Your task to perform on an android device: turn on translation in the chrome app Image 0: 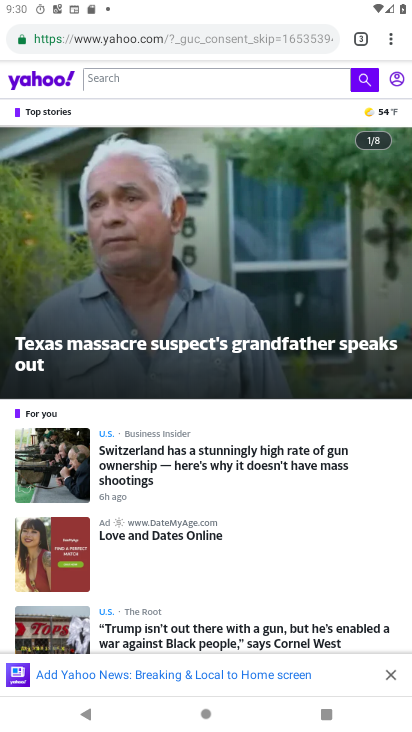
Step 0: click (392, 44)
Your task to perform on an android device: turn on translation in the chrome app Image 1: 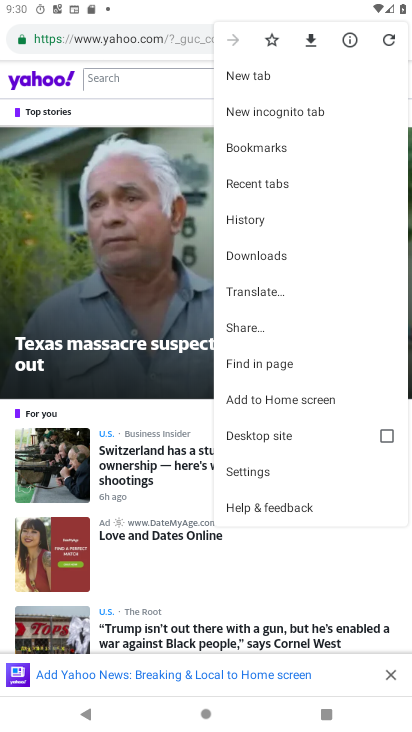
Step 1: click (246, 469)
Your task to perform on an android device: turn on translation in the chrome app Image 2: 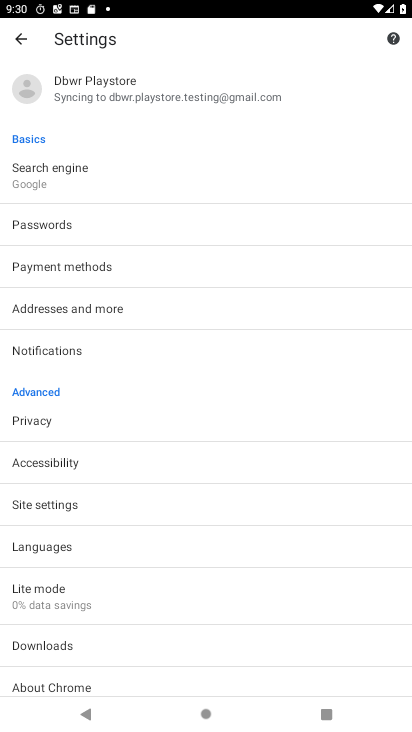
Step 2: click (57, 546)
Your task to perform on an android device: turn on translation in the chrome app Image 3: 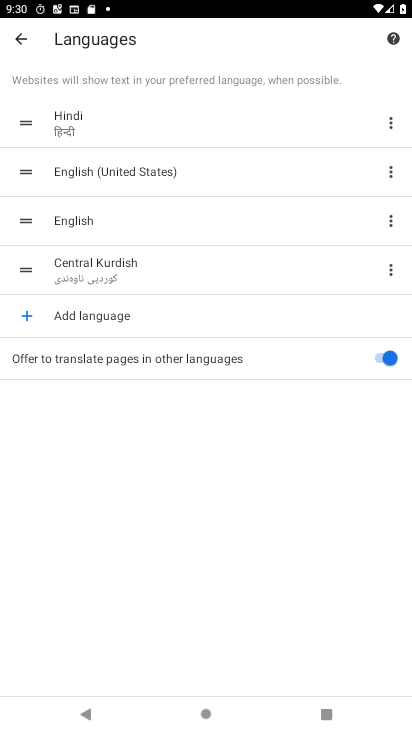
Step 3: task complete